Your task to perform on an android device: Check the weather Image 0: 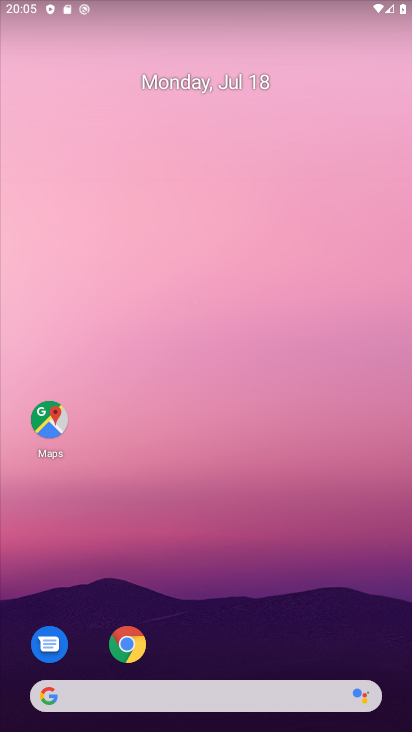
Step 0: drag from (145, 690) to (170, 150)
Your task to perform on an android device: Check the weather Image 1: 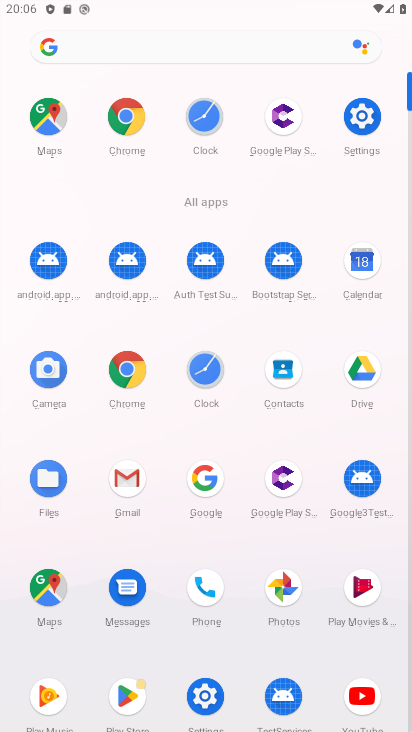
Step 1: click (203, 480)
Your task to perform on an android device: Check the weather Image 2: 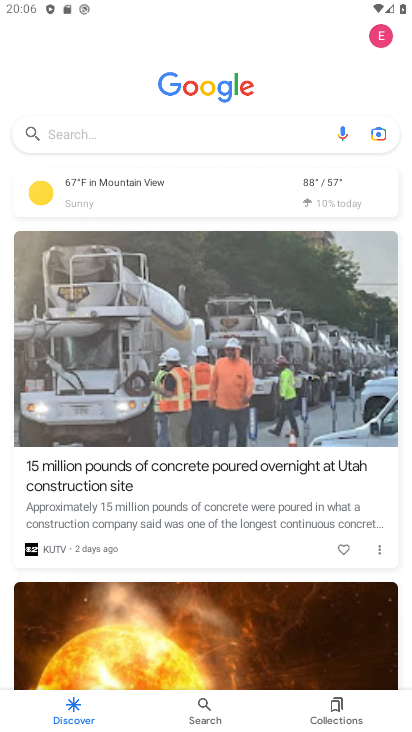
Step 2: click (145, 182)
Your task to perform on an android device: Check the weather Image 3: 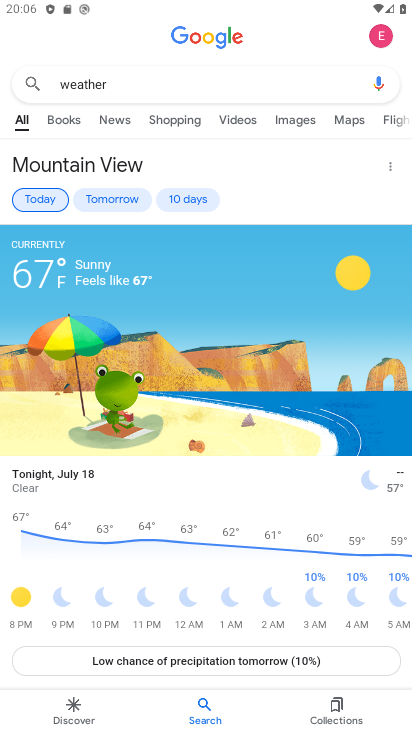
Step 3: task complete